Your task to perform on an android device: Open Yahoo.com Image 0: 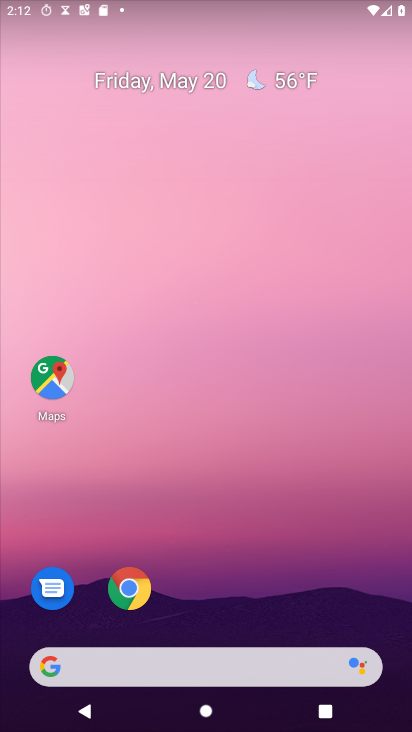
Step 0: click (115, 591)
Your task to perform on an android device: Open Yahoo.com Image 1: 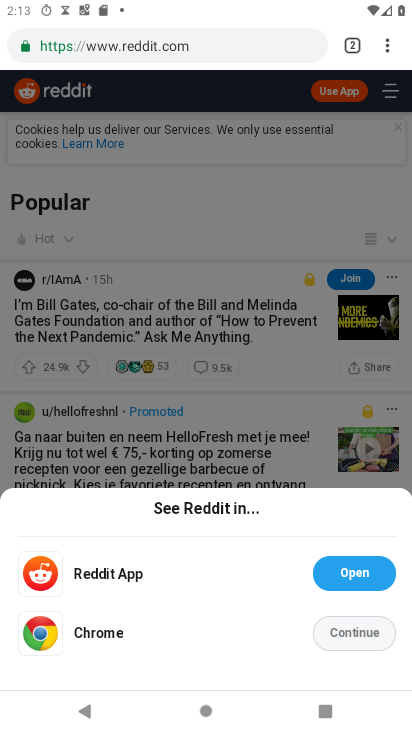
Step 1: click (331, 46)
Your task to perform on an android device: Open Yahoo.com Image 2: 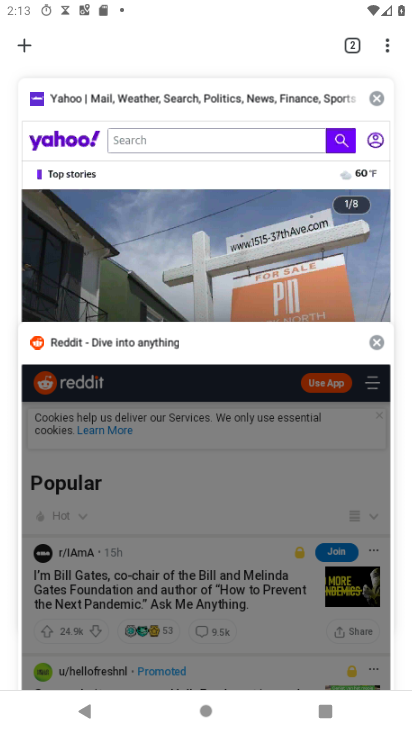
Step 2: click (379, 339)
Your task to perform on an android device: Open Yahoo.com Image 3: 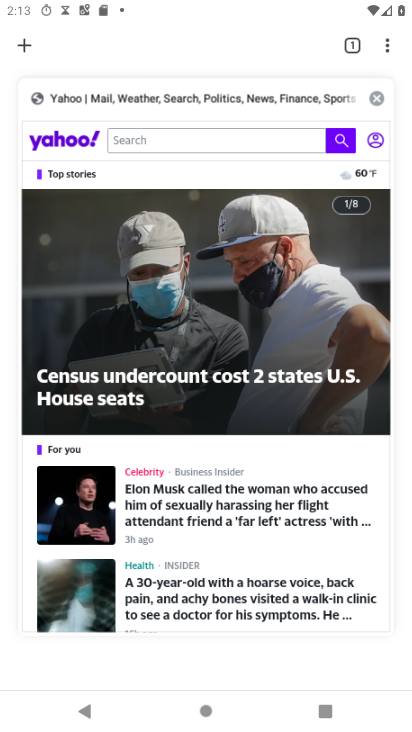
Step 3: task complete